Your task to perform on an android device: Open Chrome and go to settings Image 0: 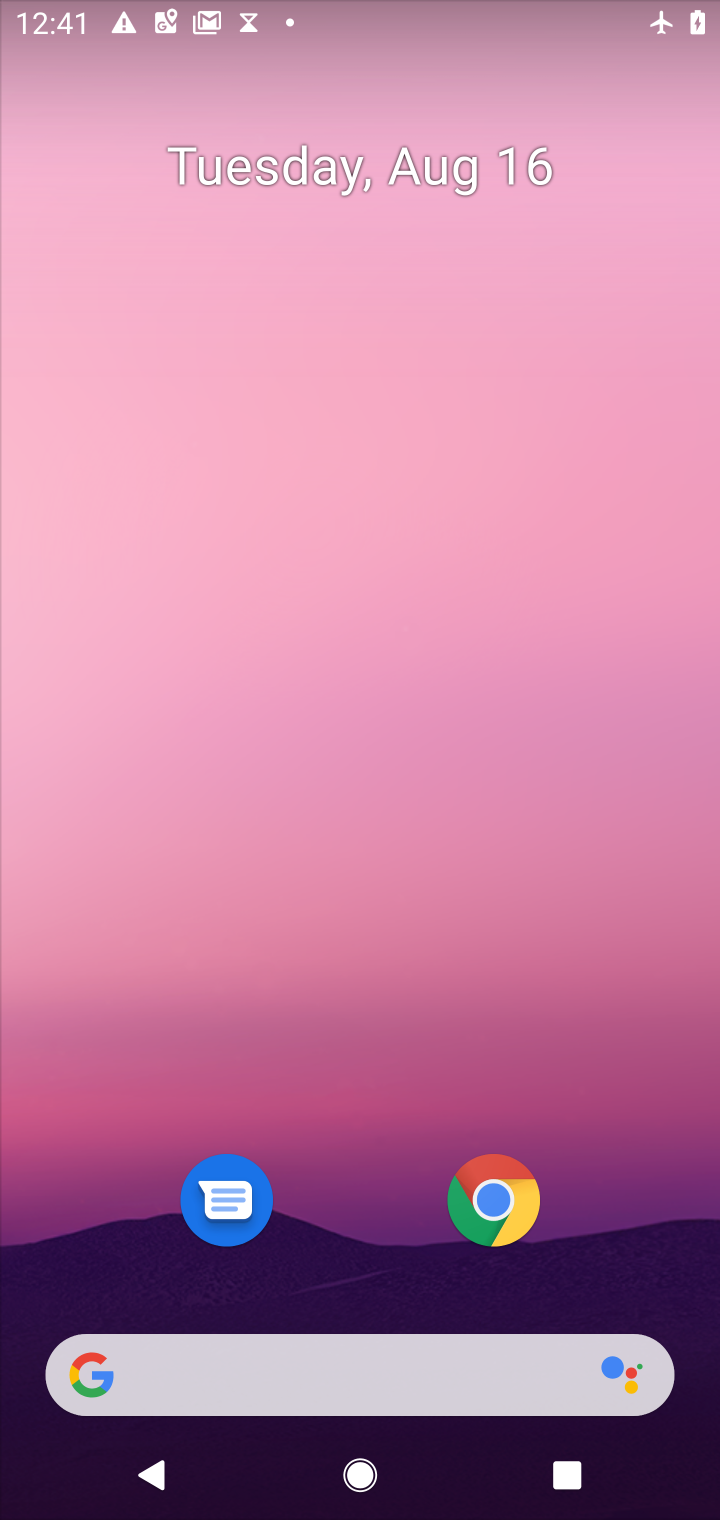
Step 0: click (507, 1178)
Your task to perform on an android device: Open Chrome and go to settings Image 1: 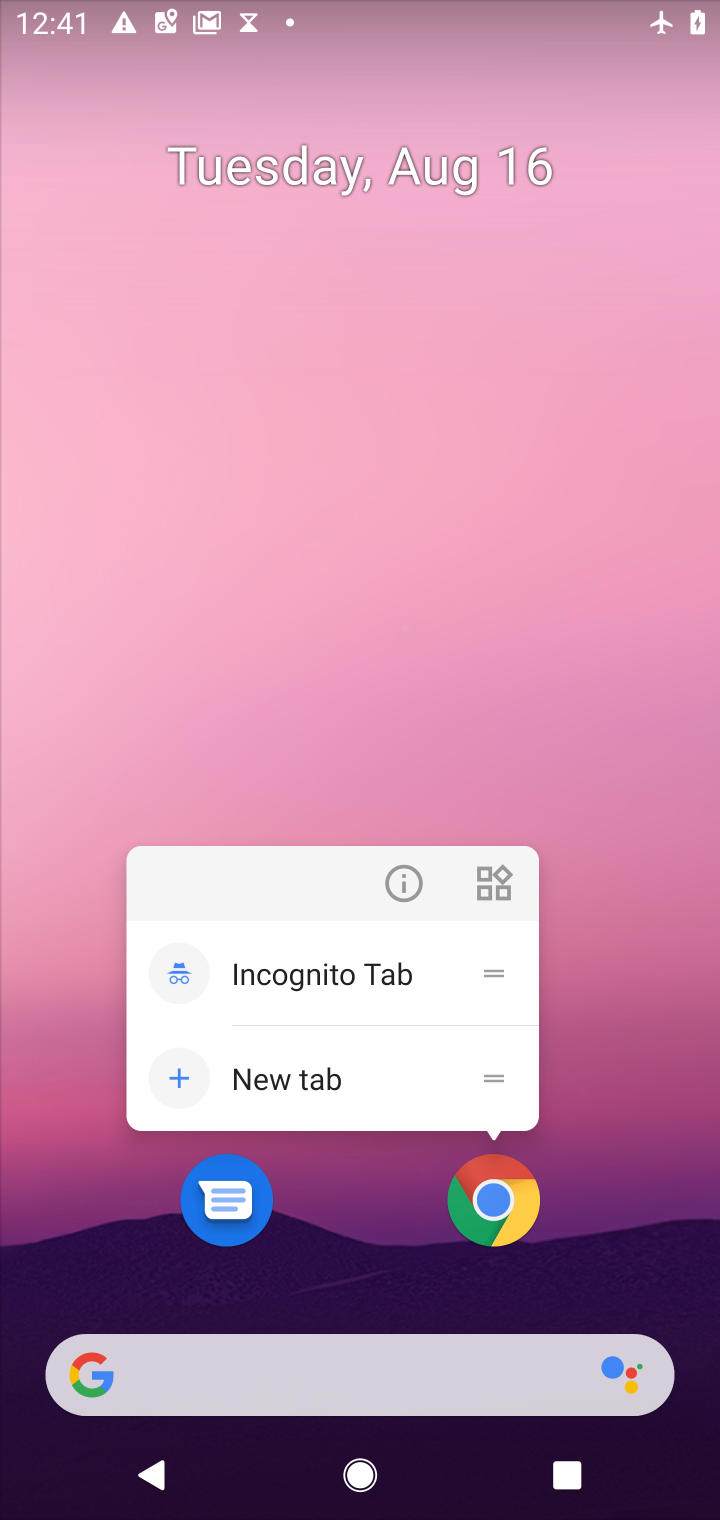
Step 1: click (507, 1178)
Your task to perform on an android device: Open Chrome and go to settings Image 2: 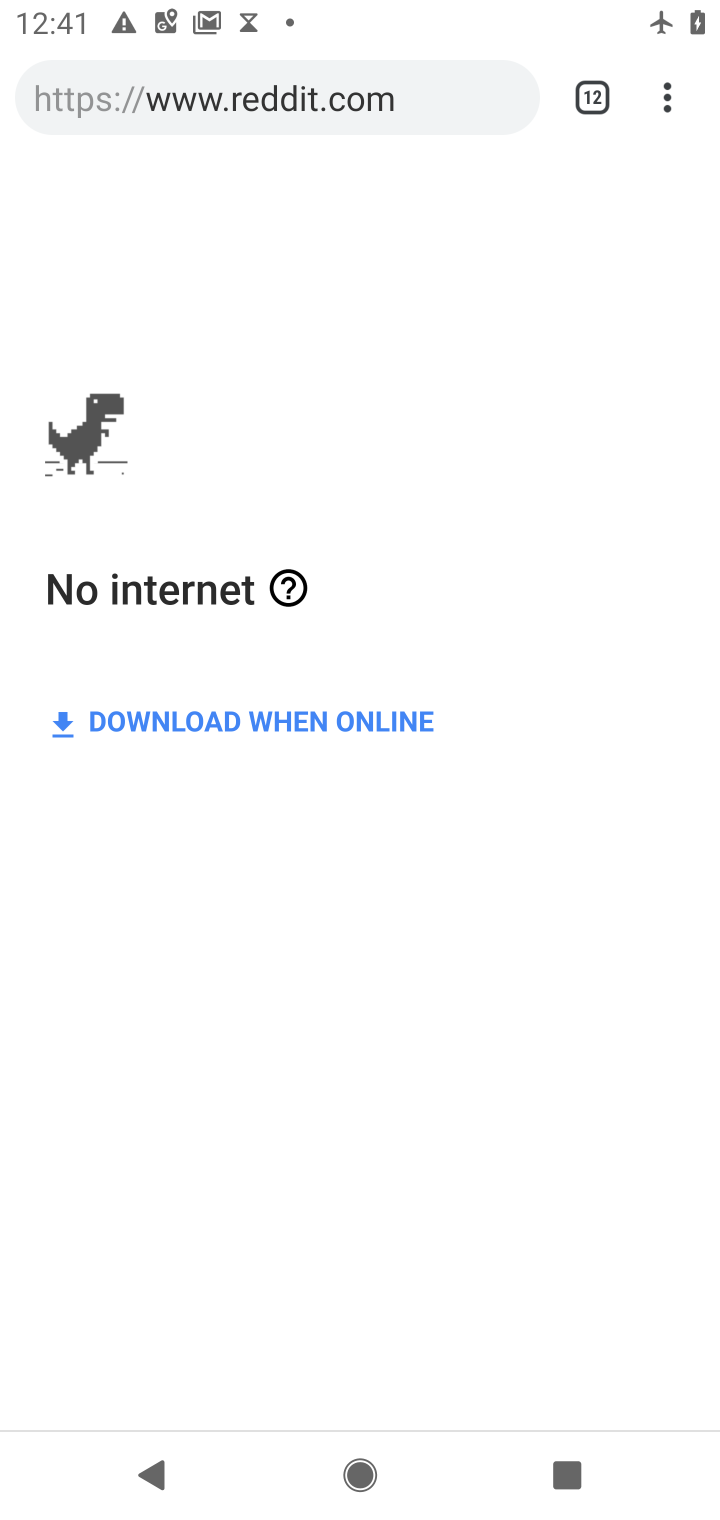
Step 2: click (668, 86)
Your task to perform on an android device: Open Chrome and go to settings Image 3: 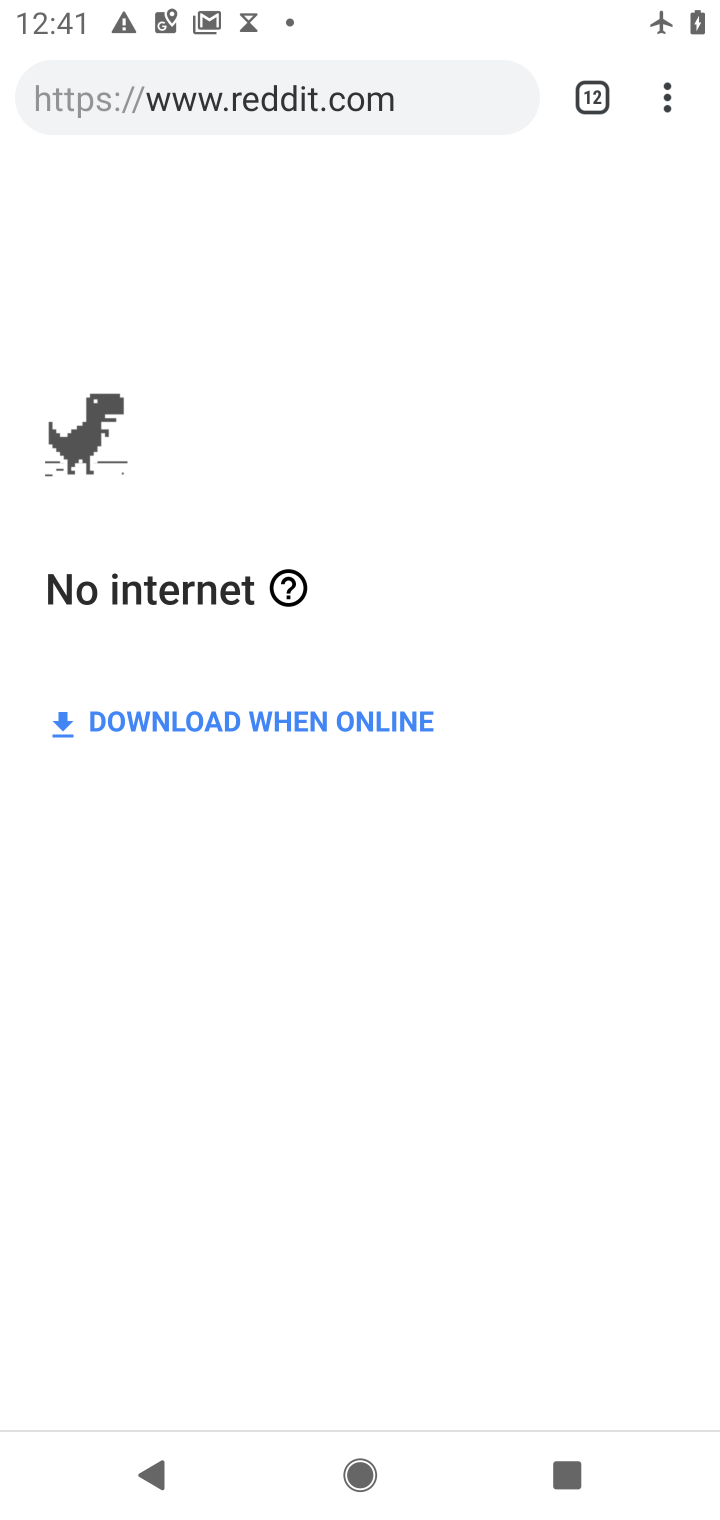
Step 3: click (668, 86)
Your task to perform on an android device: Open Chrome and go to settings Image 4: 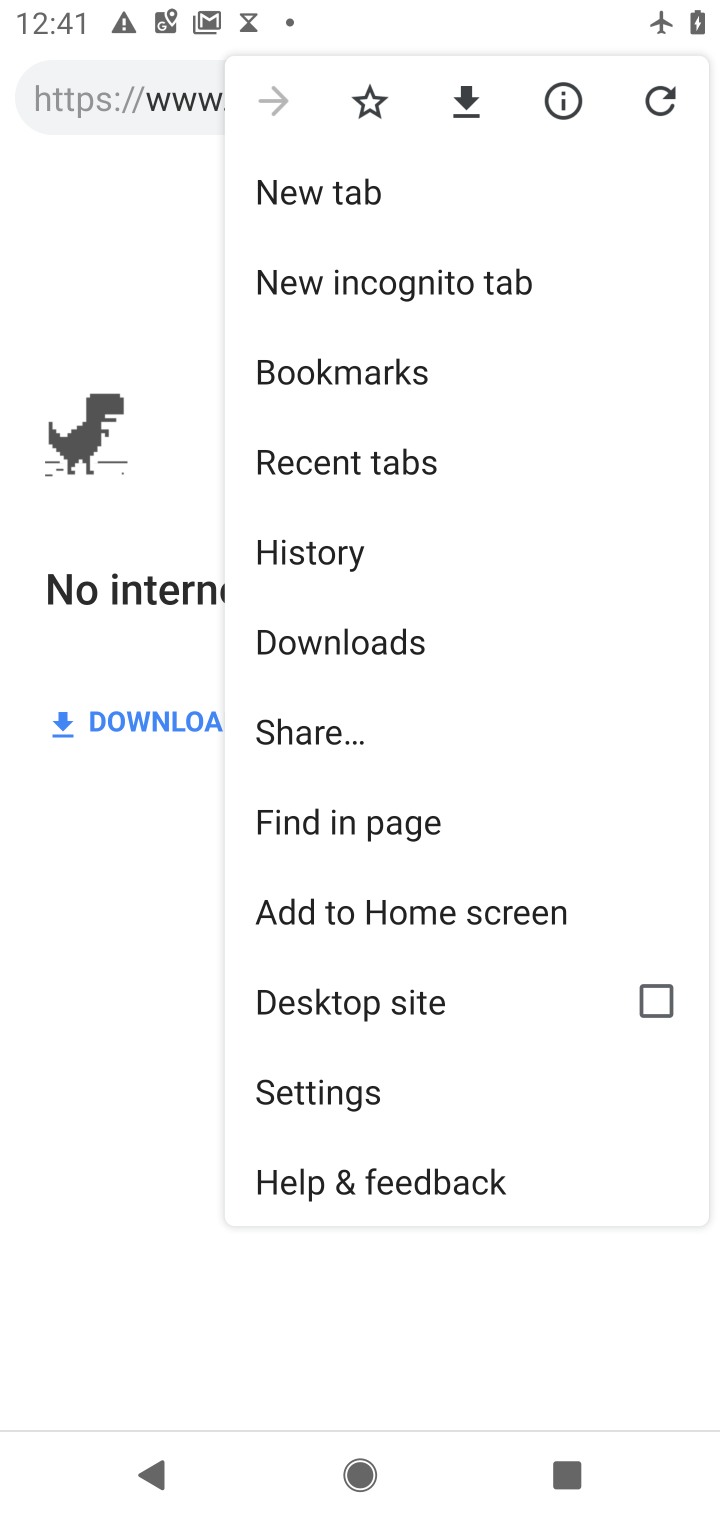
Step 4: click (323, 1094)
Your task to perform on an android device: Open Chrome and go to settings Image 5: 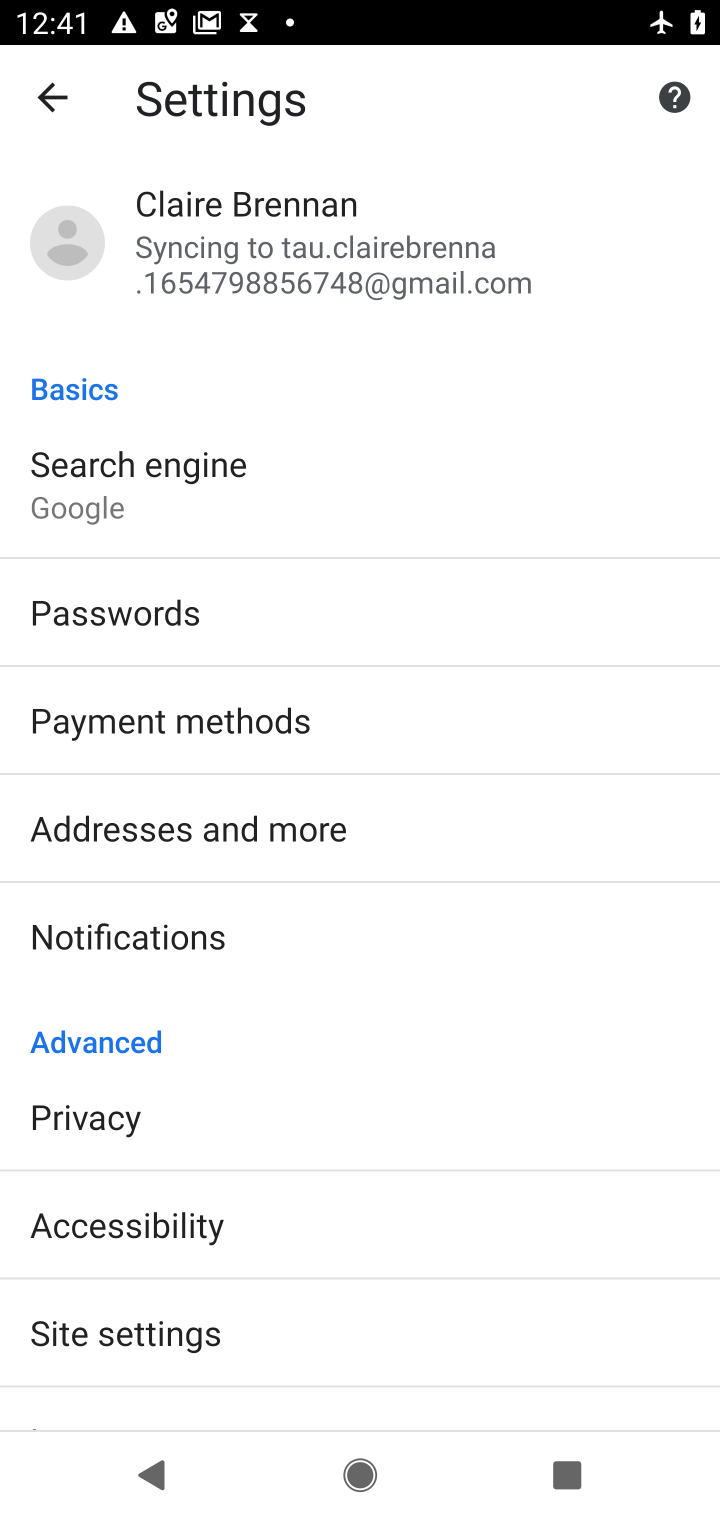
Step 5: task complete